Your task to perform on an android device: change the clock display to show seconds Image 0: 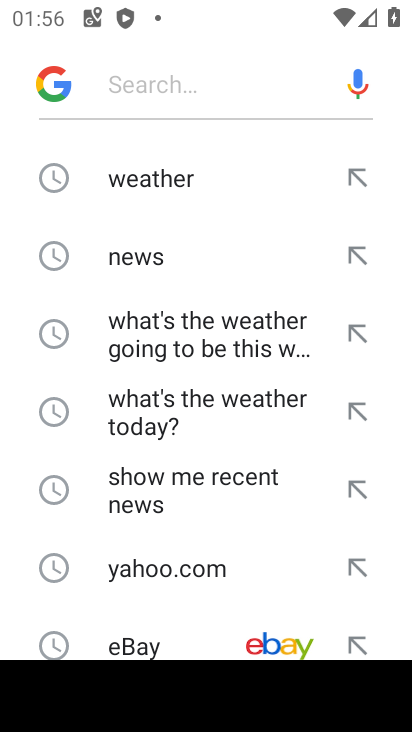
Step 0: press back button
Your task to perform on an android device: change the clock display to show seconds Image 1: 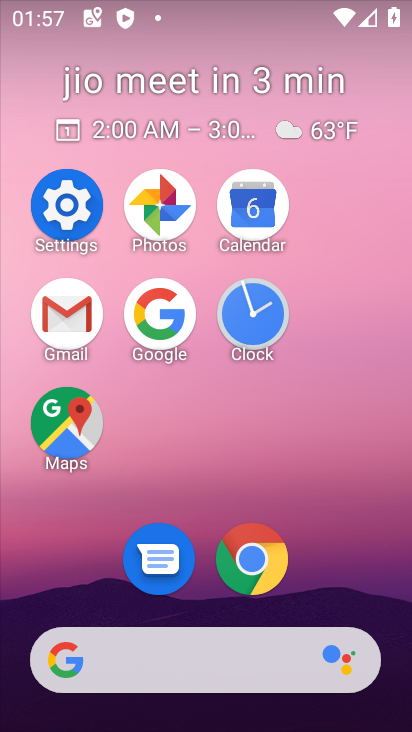
Step 1: drag from (250, 307) to (313, 307)
Your task to perform on an android device: change the clock display to show seconds Image 2: 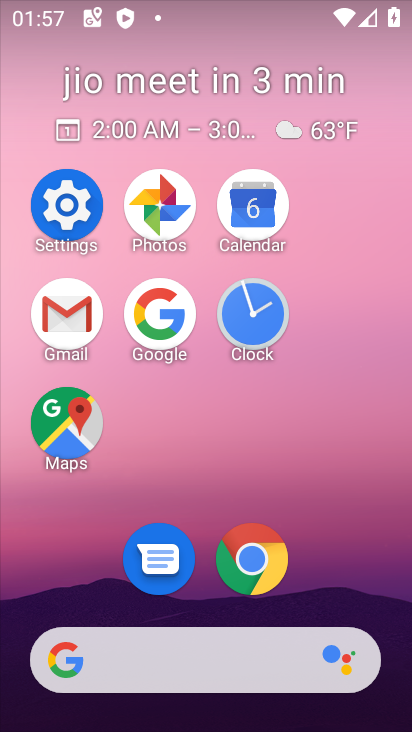
Step 2: click (282, 319)
Your task to perform on an android device: change the clock display to show seconds Image 3: 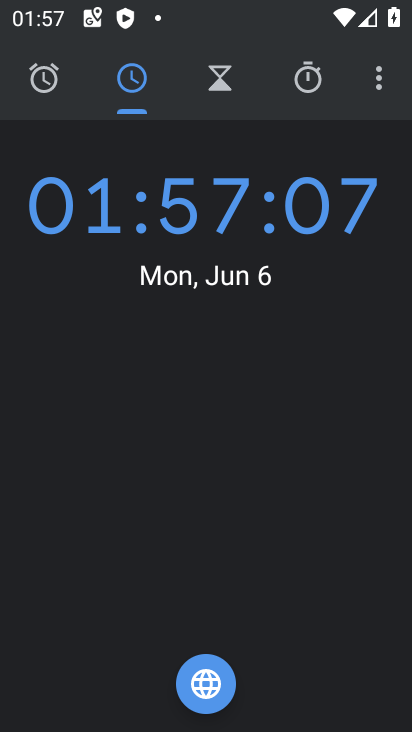
Step 3: click (375, 60)
Your task to perform on an android device: change the clock display to show seconds Image 4: 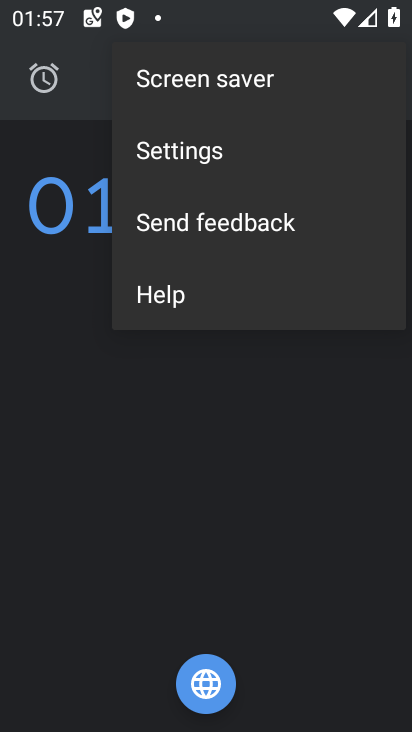
Step 4: click (142, 154)
Your task to perform on an android device: change the clock display to show seconds Image 5: 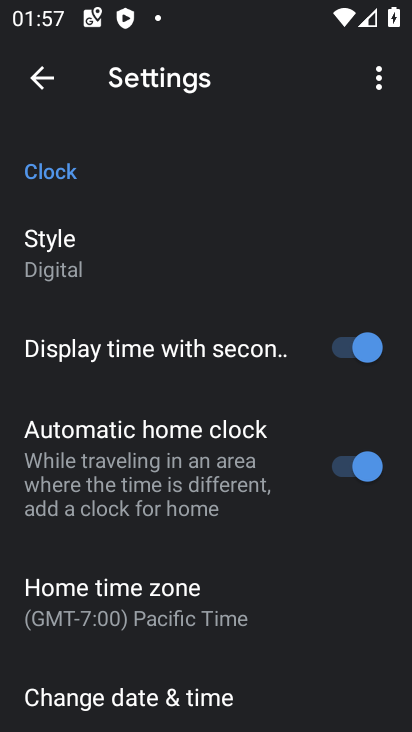
Step 5: task complete